Your task to perform on an android device: set the timer Image 0: 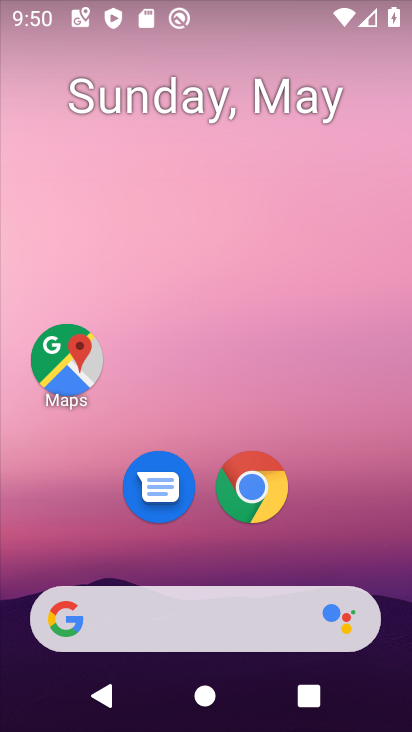
Step 0: drag from (368, 574) to (349, 160)
Your task to perform on an android device: set the timer Image 1: 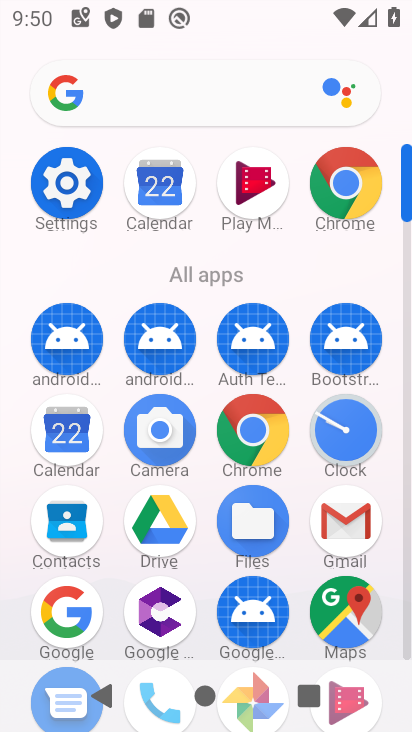
Step 1: click (367, 438)
Your task to perform on an android device: set the timer Image 2: 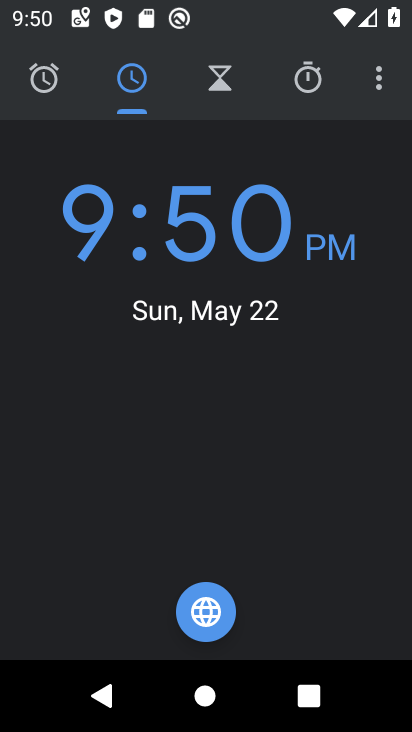
Step 2: click (222, 86)
Your task to perform on an android device: set the timer Image 3: 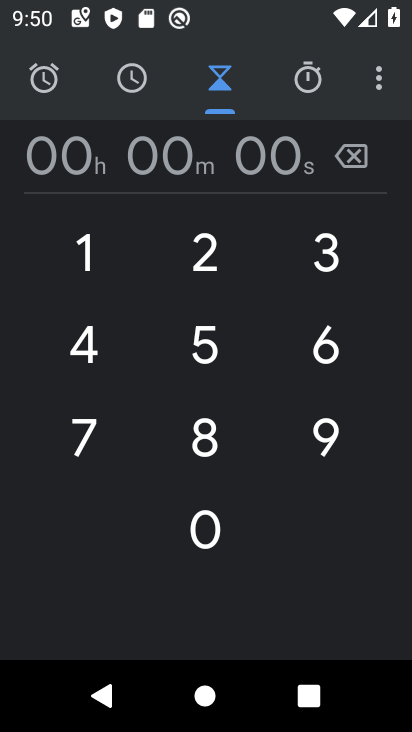
Step 3: click (201, 329)
Your task to perform on an android device: set the timer Image 4: 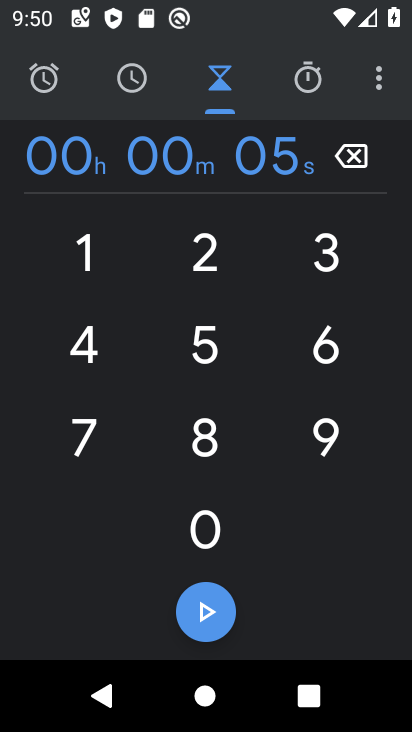
Step 4: task complete